Your task to perform on an android device: Search for Italian restaurants on Maps Image 0: 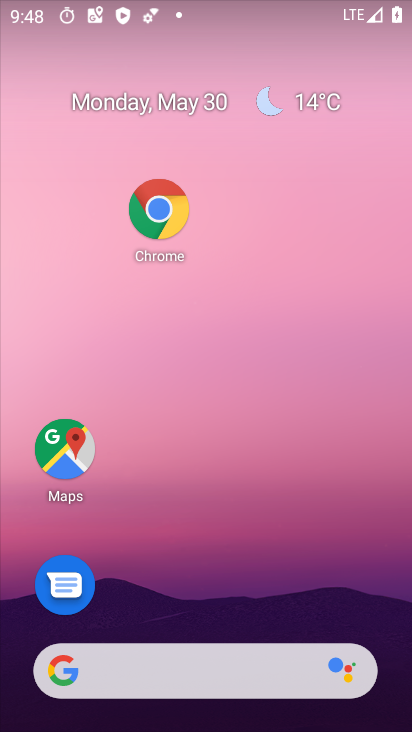
Step 0: drag from (162, 591) to (297, 95)
Your task to perform on an android device: Search for Italian restaurants on Maps Image 1: 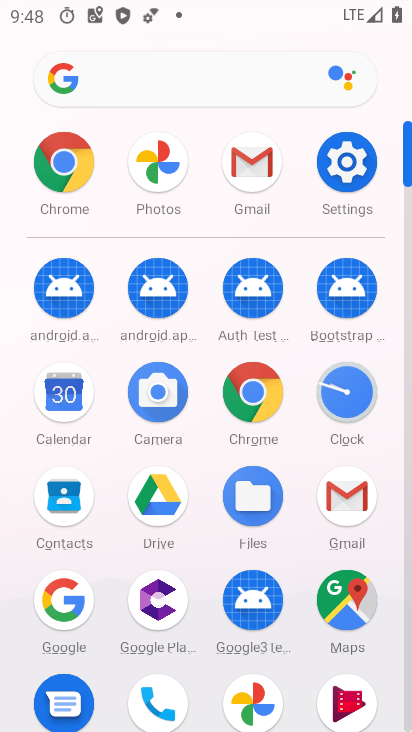
Step 1: click (332, 595)
Your task to perform on an android device: Search for Italian restaurants on Maps Image 2: 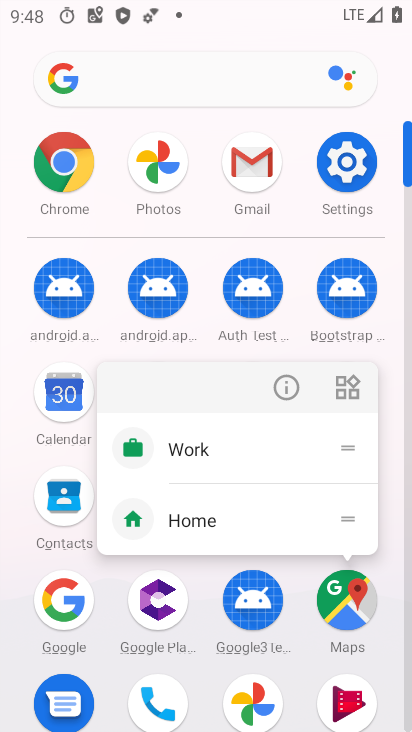
Step 2: click (287, 389)
Your task to perform on an android device: Search for Italian restaurants on Maps Image 3: 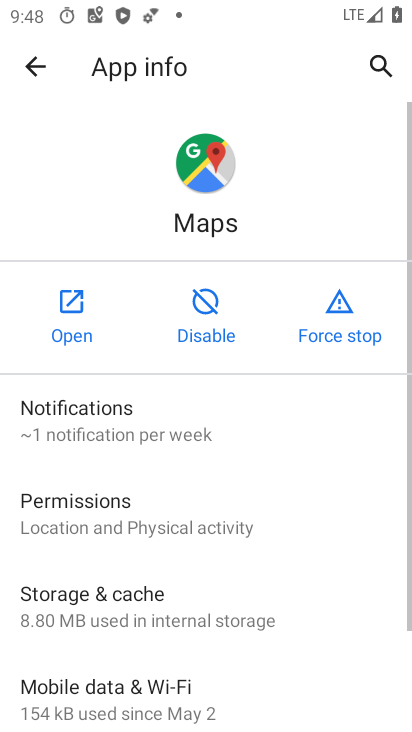
Step 3: click (68, 311)
Your task to perform on an android device: Search for Italian restaurants on Maps Image 4: 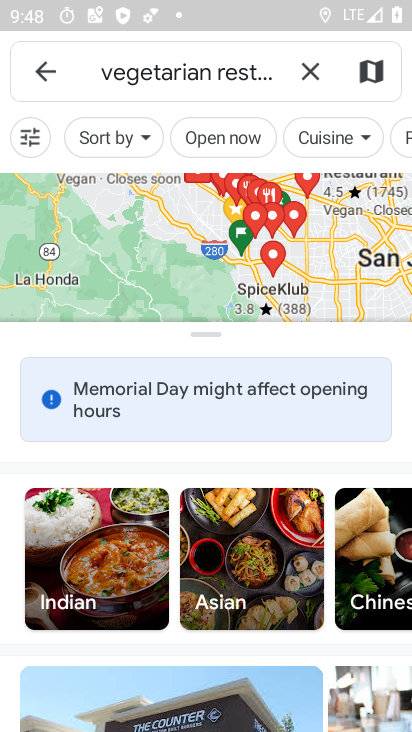
Step 4: click (305, 72)
Your task to perform on an android device: Search for Italian restaurants on Maps Image 5: 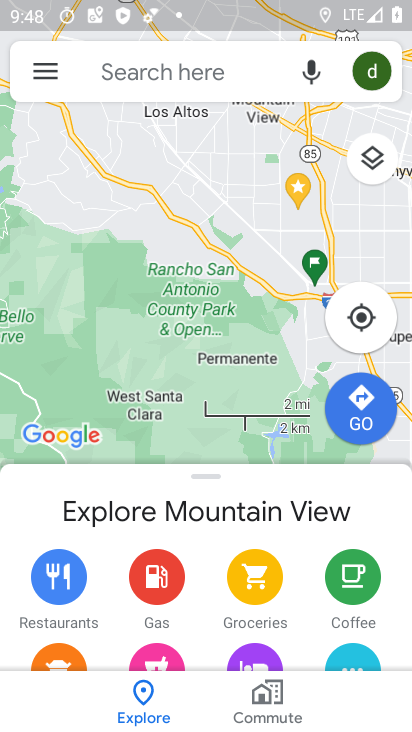
Step 5: click (213, 72)
Your task to perform on an android device: Search for Italian restaurants on Maps Image 6: 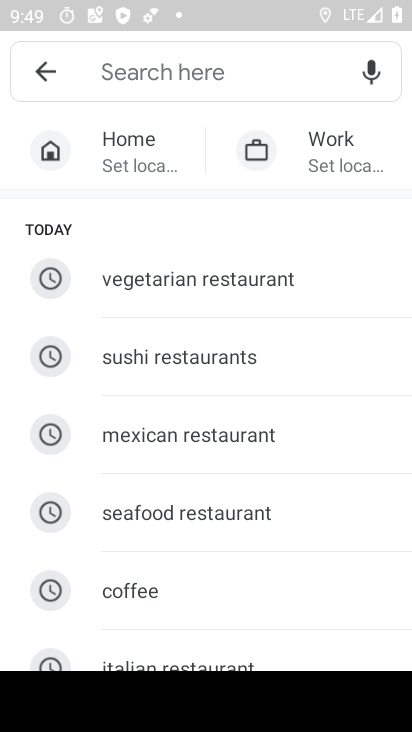
Step 6: drag from (199, 597) to (260, 218)
Your task to perform on an android device: Search for Italian restaurants on Maps Image 7: 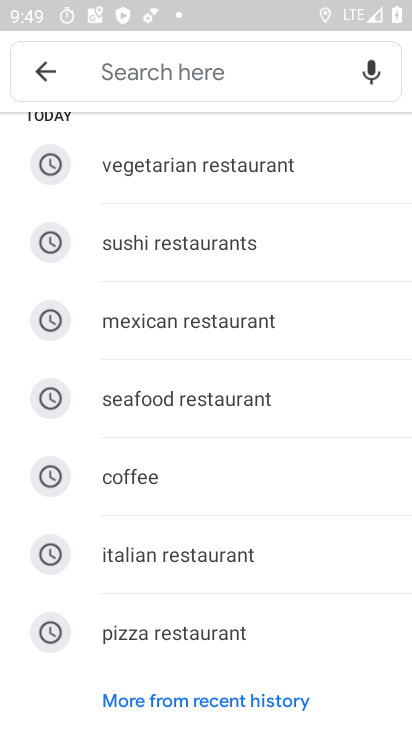
Step 7: click (131, 545)
Your task to perform on an android device: Search for Italian restaurants on Maps Image 8: 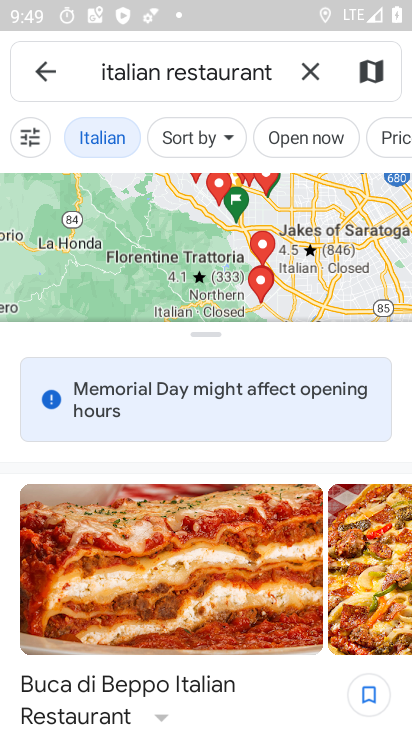
Step 8: task complete